Your task to perform on an android device: Show me productivity apps on the Play Store Image 0: 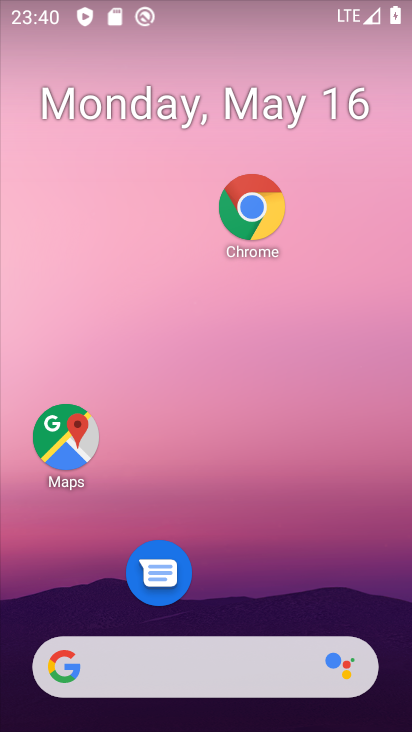
Step 0: drag from (270, 606) to (222, 117)
Your task to perform on an android device: Show me productivity apps on the Play Store Image 1: 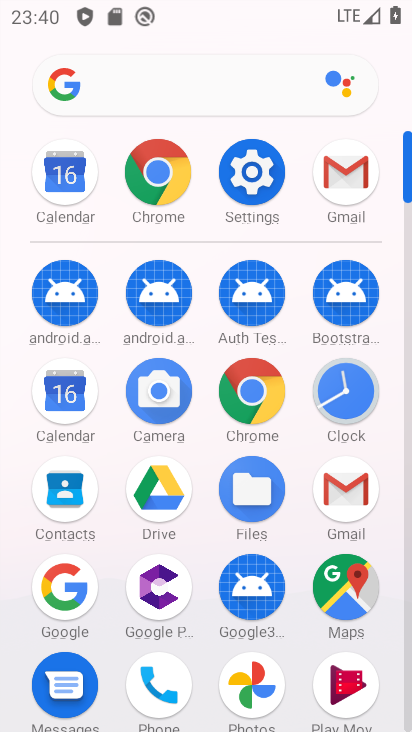
Step 1: drag from (301, 687) to (304, 278)
Your task to perform on an android device: Show me productivity apps on the Play Store Image 2: 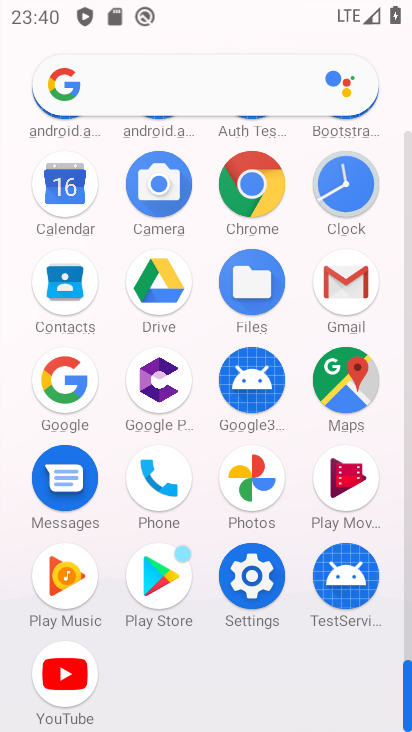
Step 2: click (173, 573)
Your task to perform on an android device: Show me productivity apps on the Play Store Image 3: 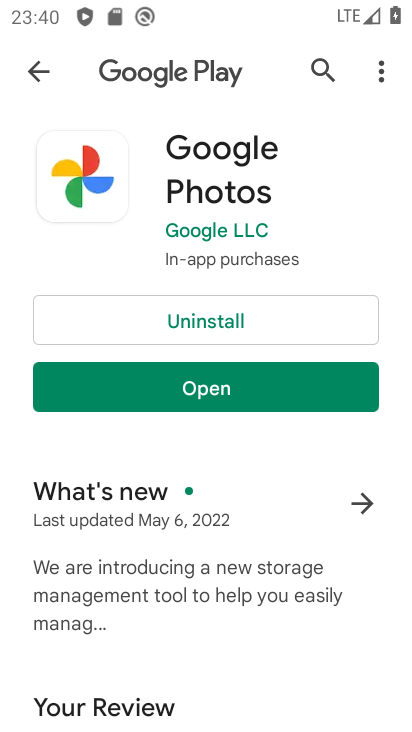
Step 3: press back button
Your task to perform on an android device: Show me productivity apps on the Play Store Image 4: 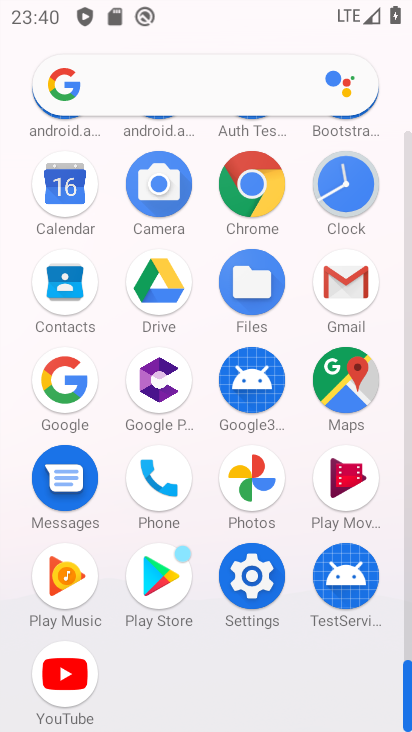
Step 4: click (149, 595)
Your task to perform on an android device: Show me productivity apps on the Play Store Image 5: 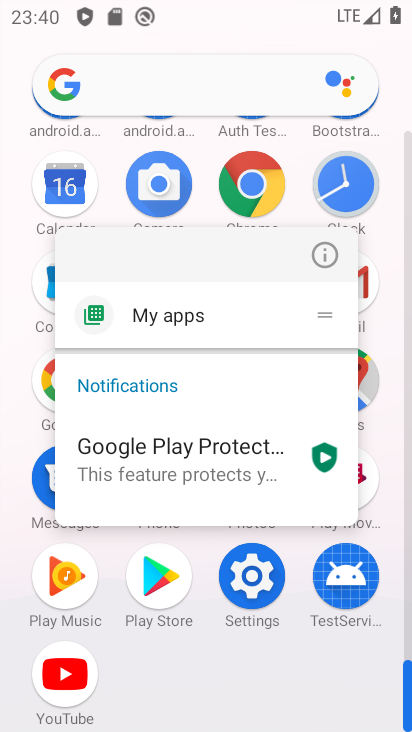
Step 5: click (152, 592)
Your task to perform on an android device: Show me productivity apps on the Play Store Image 6: 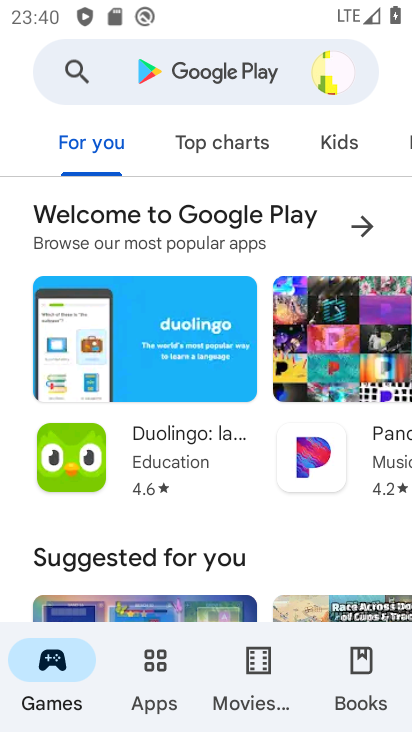
Step 6: drag from (268, 577) to (270, 236)
Your task to perform on an android device: Show me productivity apps on the Play Store Image 7: 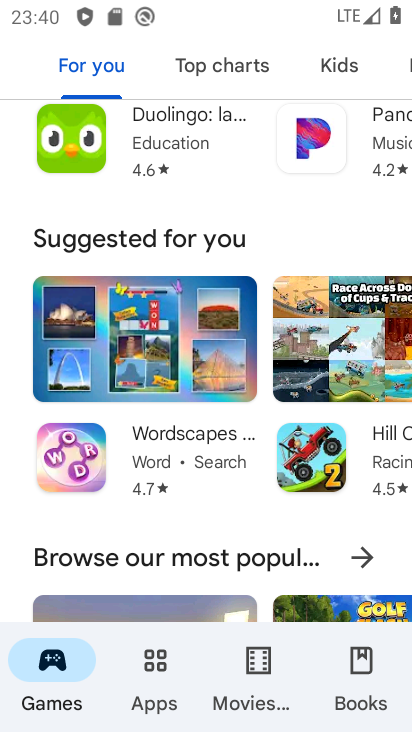
Step 7: click (166, 670)
Your task to perform on an android device: Show me productivity apps on the Play Store Image 8: 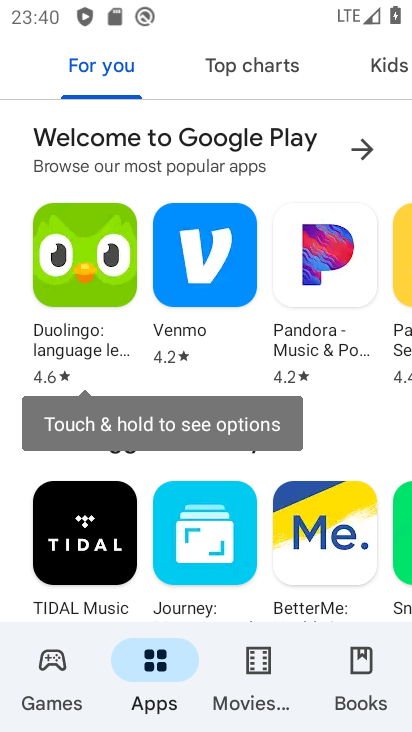
Step 8: task complete